Your task to perform on an android device: Go to settings Image 0: 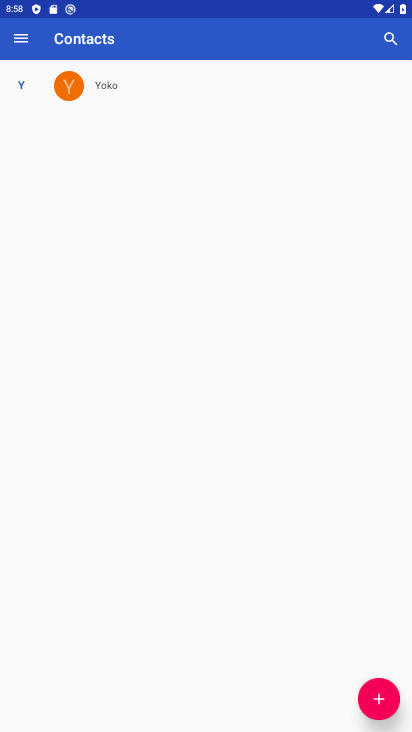
Step 0: press home button
Your task to perform on an android device: Go to settings Image 1: 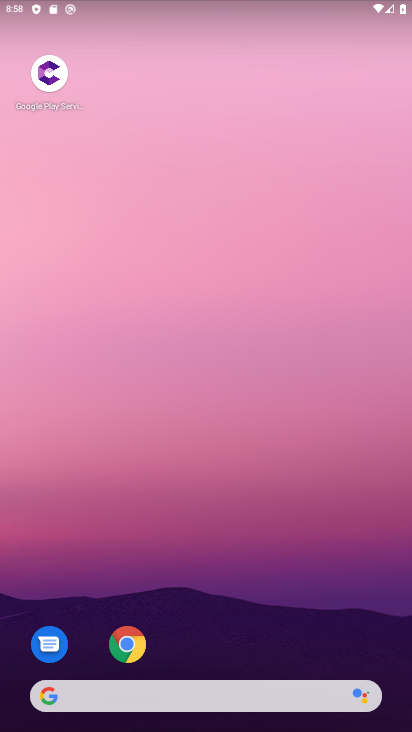
Step 1: drag from (314, 546) to (312, 66)
Your task to perform on an android device: Go to settings Image 2: 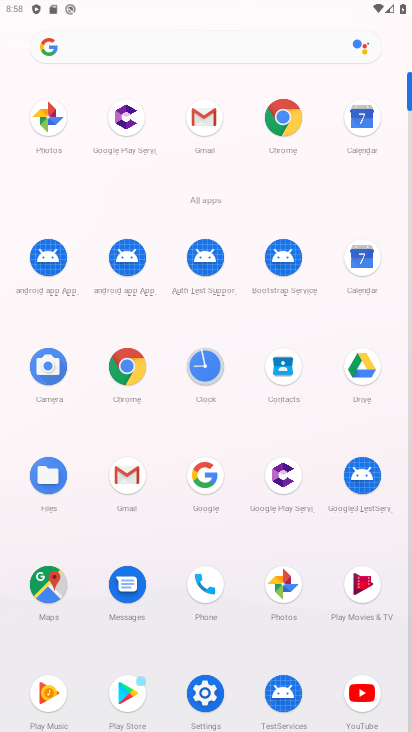
Step 2: click (202, 695)
Your task to perform on an android device: Go to settings Image 3: 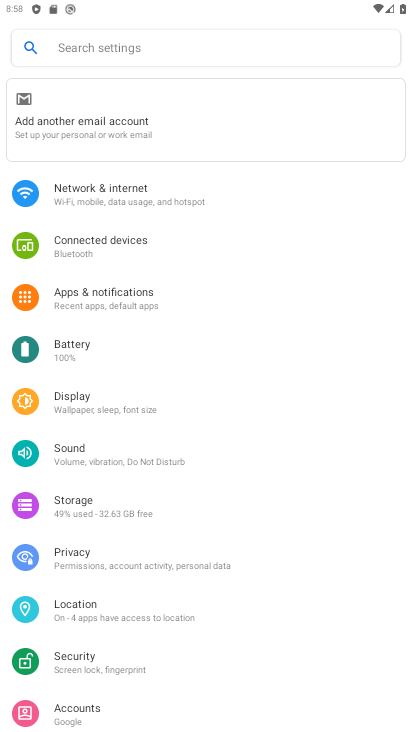
Step 3: task complete